Your task to perform on an android device: change alarm snooze length Image 0: 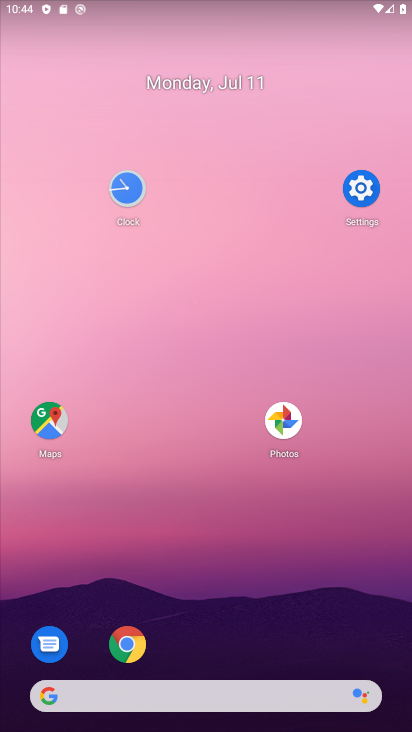
Step 0: drag from (274, 610) to (273, 205)
Your task to perform on an android device: change alarm snooze length Image 1: 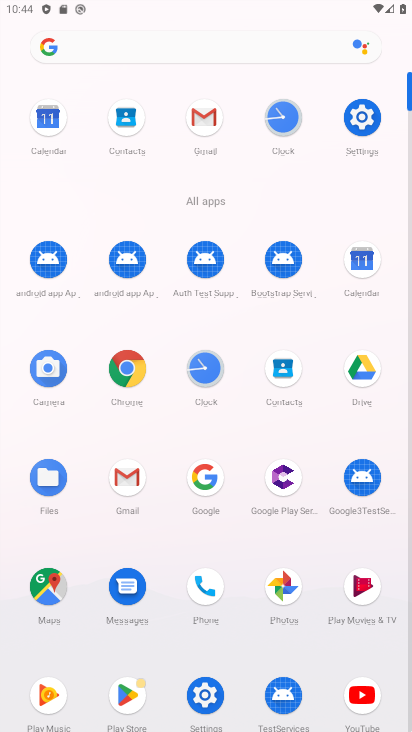
Step 1: click (218, 378)
Your task to perform on an android device: change alarm snooze length Image 2: 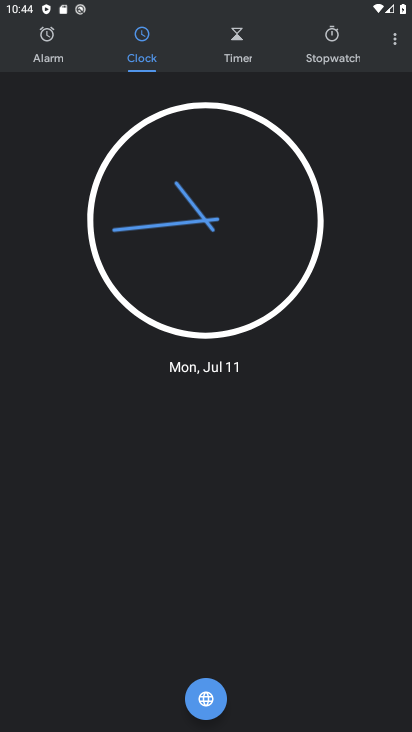
Step 2: click (396, 34)
Your task to perform on an android device: change alarm snooze length Image 3: 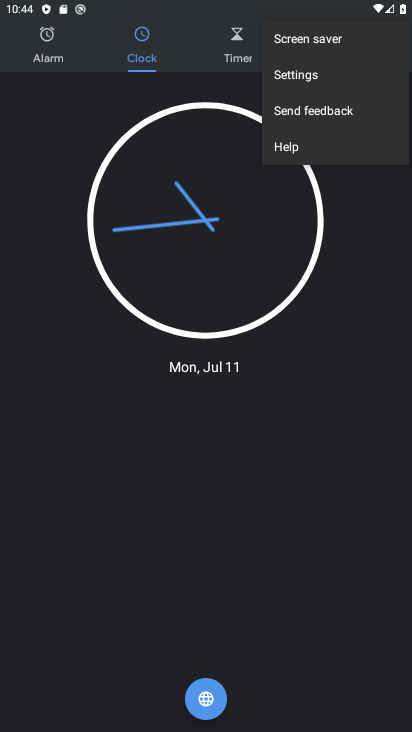
Step 3: click (336, 78)
Your task to perform on an android device: change alarm snooze length Image 4: 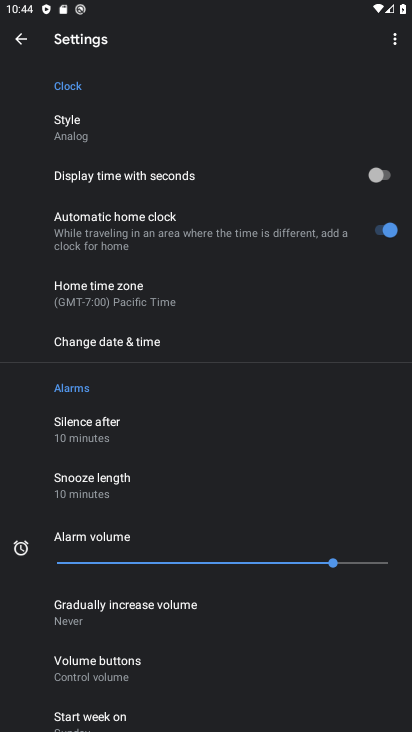
Step 4: click (129, 482)
Your task to perform on an android device: change alarm snooze length Image 5: 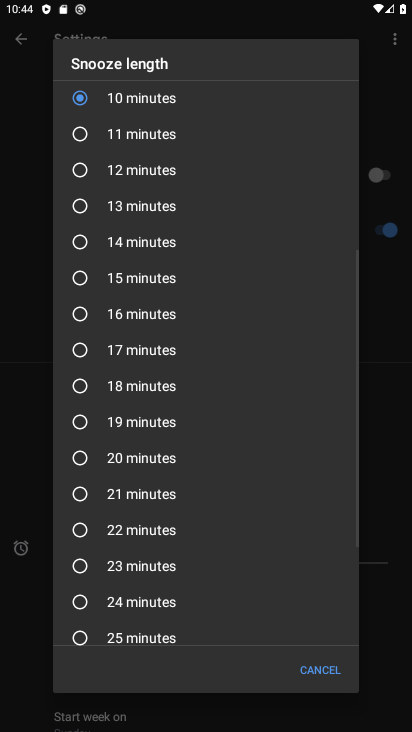
Step 5: click (166, 140)
Your task to perform on an android device: change alarm snooze length Image 6: 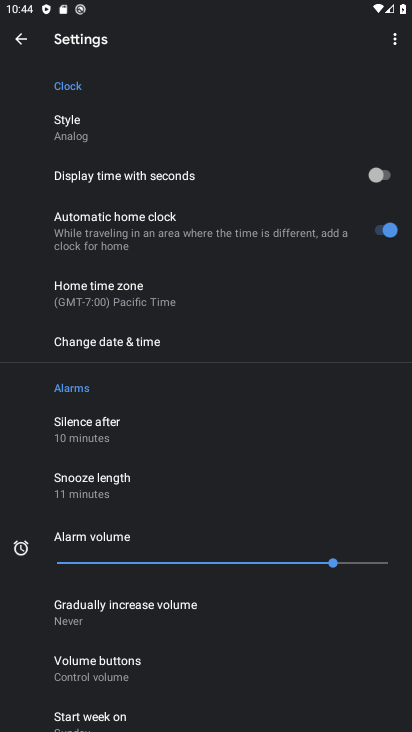
Step 6: task complete